Your task to perform on an android device: open chrome privacy settings Image 0: 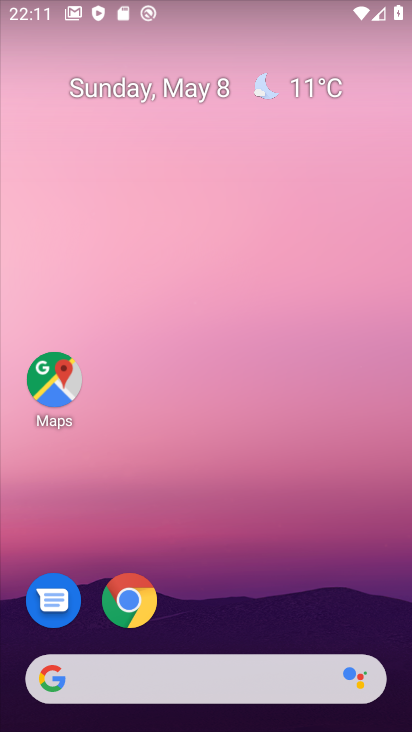
Step 0: click (131, 601)
Your task to perform on an android device: open chrome privacy settings Image 1: 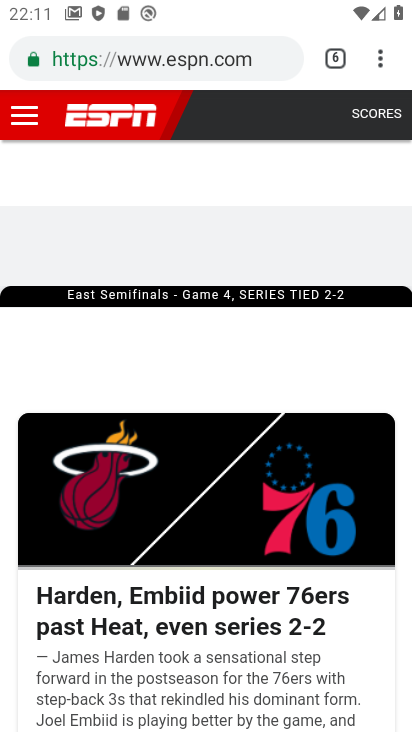
Step 1: click (391, 69)
Your task to perform on an android device: open chrome privacy settings Image 2: 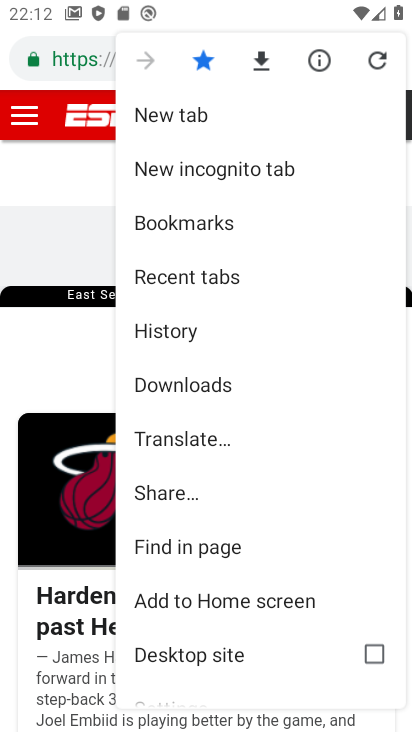
Step 2: drag from (284, 661) to (289, 155)
Your task to perform on an android device: open chrome privacy settings Image 3: 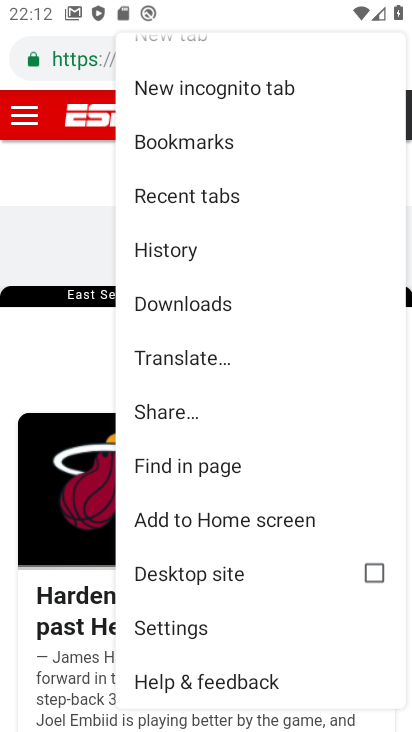
Step 3: click (202, 636)
Your task to perform on an android device: open chrome privacy settings Image 4: 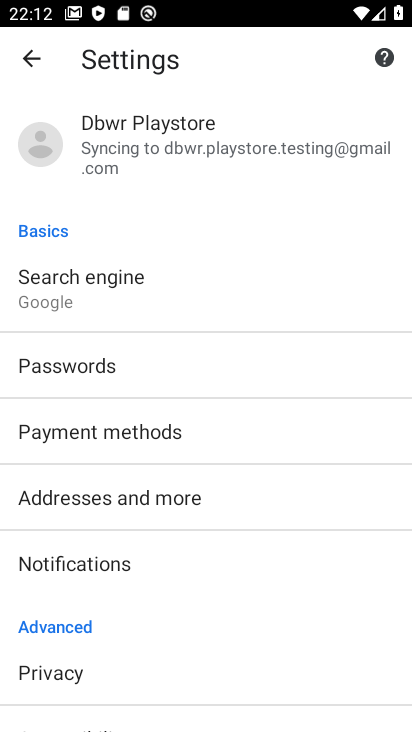
Step 4: click (156, 653)
Your task to perform on an android device: open chrome privacy settings Image 5: 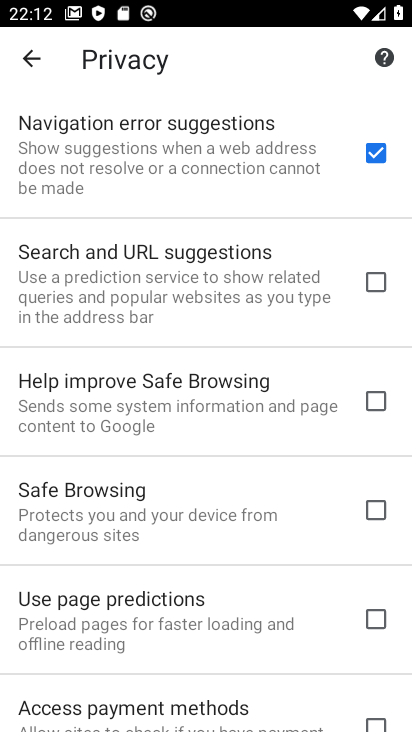
Step 5: task complete